Your task to perform on an android device: What is the news today? Image 0: 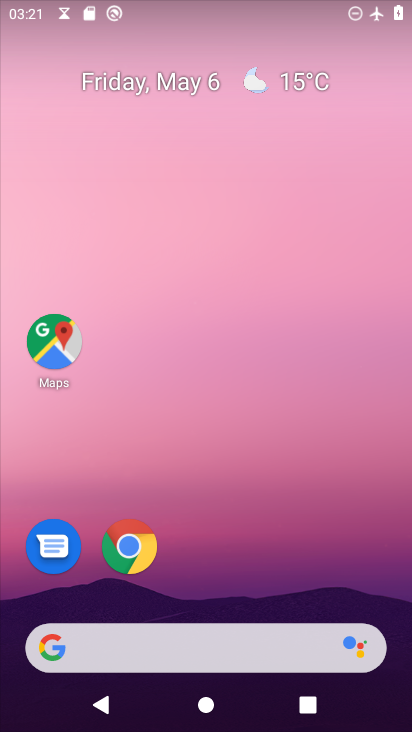
Step 0: click (205, 652)
Your task to perform on an android device: What is the news today? Image 1: 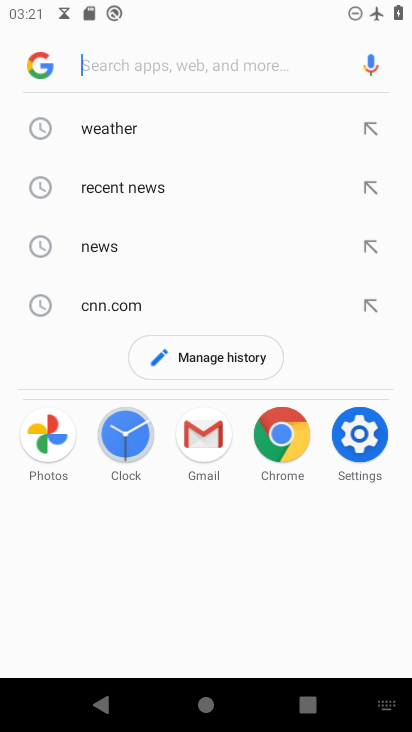
Step 1: click (123, 243)
Your task to perform on an android device: What is the news today? Image 2: 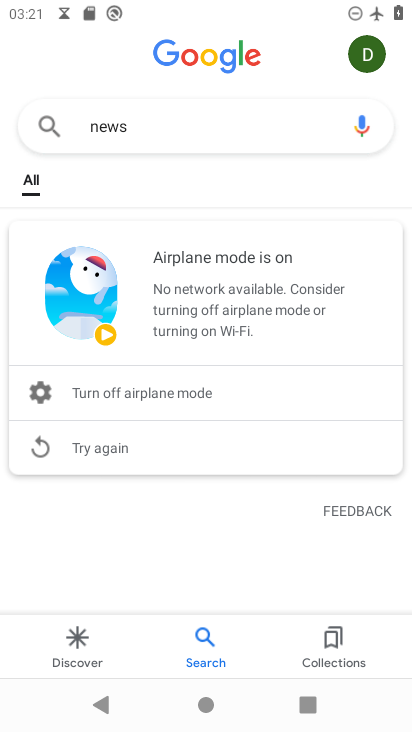
Step 2: task complete